Your task to perform on an android device: Empty the shopping cart on newegg. Add acer predator to the cart on newegg, then select checkout. Image 0: 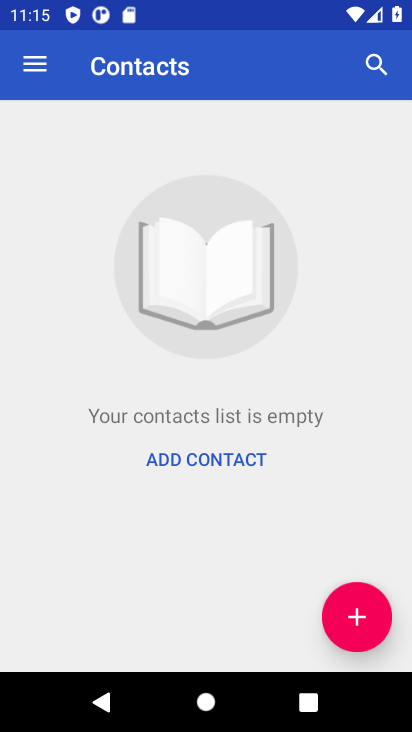
Step 0: press home button
Your task to perform on an android device: Empty the shopping cart on newegg. Add acer predator to the cart on newegg, then select checkout. Image 1: 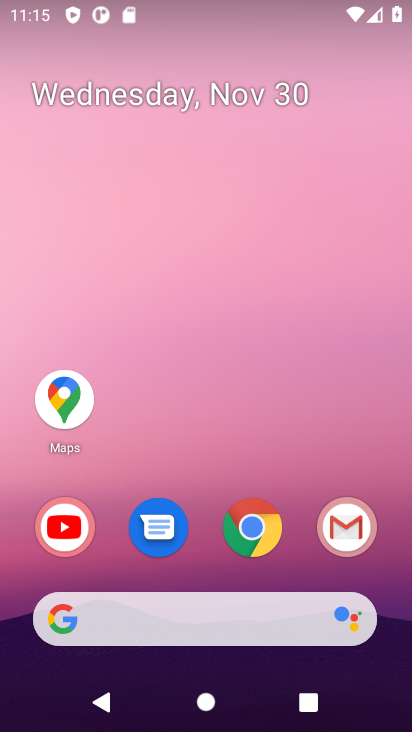
Step 1: click (255, 534)
Your task to perform on an android device: Empty the shopping cart on newegg. Add acer predator to the cart on newegg, then select checkout. Image 2: 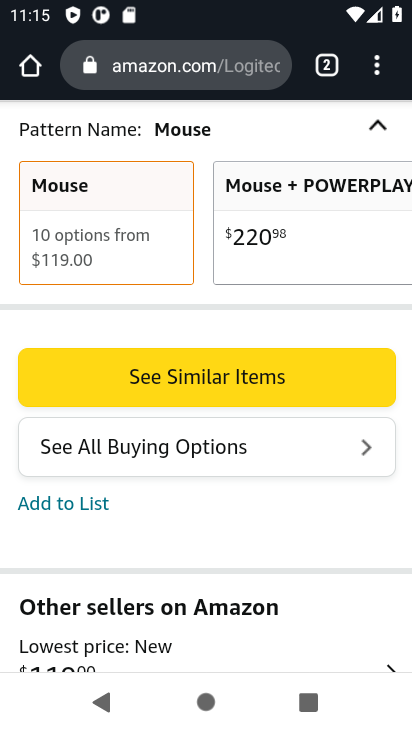
Step 2: click (164, 72)
Your task to perform on an android device: Empty the shopping cart on newegg. Add acer predator to the cart on newegg, then select checkout. Image 3: 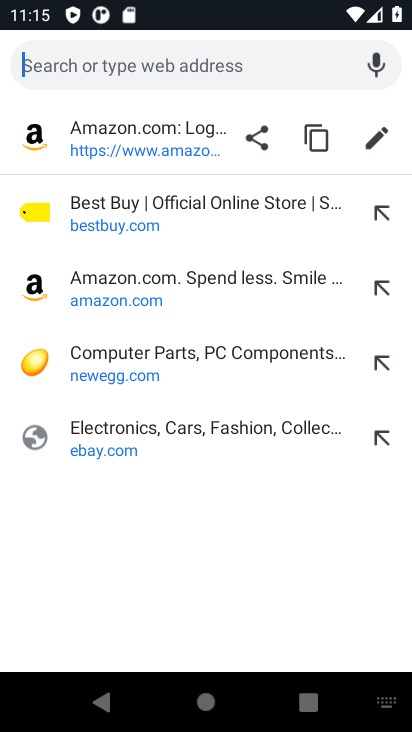
Step 3: click (96, 361)
Your task to perform on an android device: Empty the shopping cart on newegg. Add acer predator to the cart on newegg, then select checkout. Image 4: 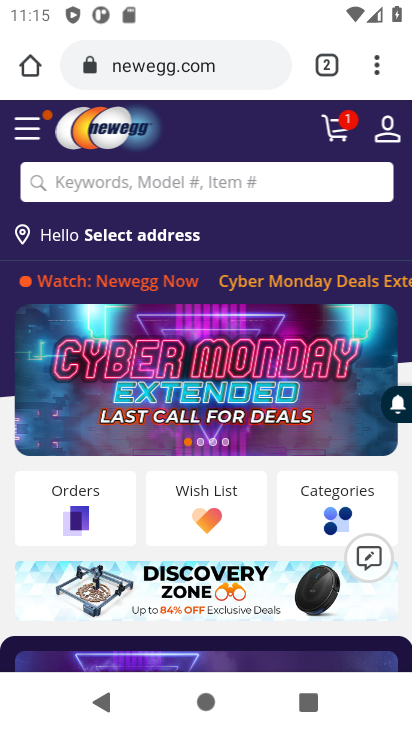
Step 4: click (335, 139)
Your task to perform on an android device: Empty the shopping cart on newegg. Add acer predator to the cart on newegg, then select checkout. Image 5: 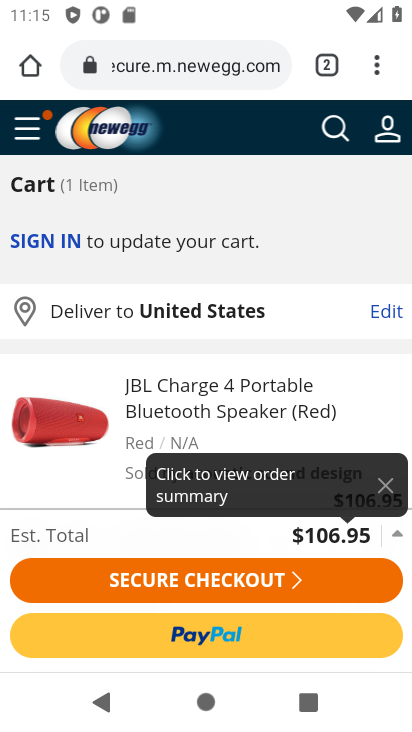
Step 5: drag from (161, 442) to (152, 233)
Your task to perform on an android device: Empty the shopping cart on newegg. Add acer predator to the cart on newegg, then select checkout. Image 6: 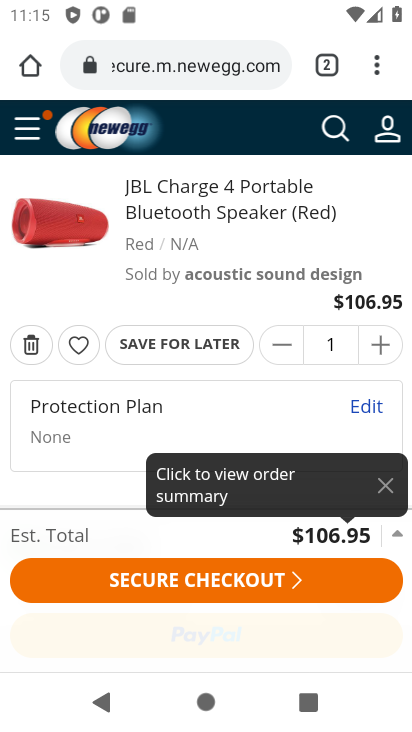
Step 6: click (31, 347)
Your task to perform on an android device: Empty the shopping cart on newegg. Add acer predator to the cart on newegg, then select checkout. Image 7: 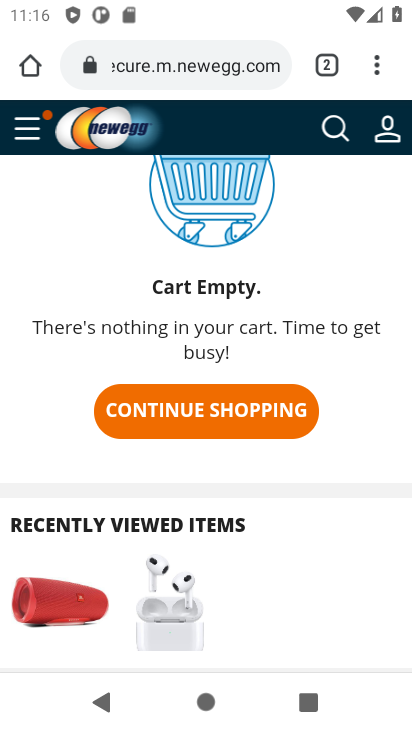
Step 7: click (332, 131)
Your task to perform on an android device: Empty the shopping cart on newegg. Add acer predator to the cart on newegg, then select checkout. Image 8: 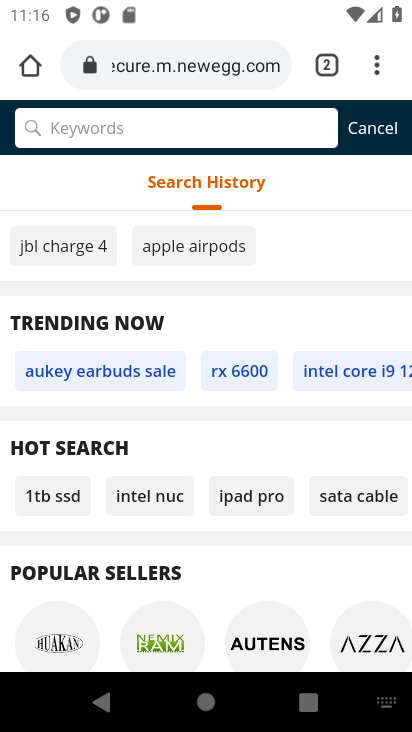
Step 8: type "acer predator"
Your task to perform on an android device: Empty the shopping cart on newegg. Add acer predator to the cart on newegg, then select checkout. Image 9: 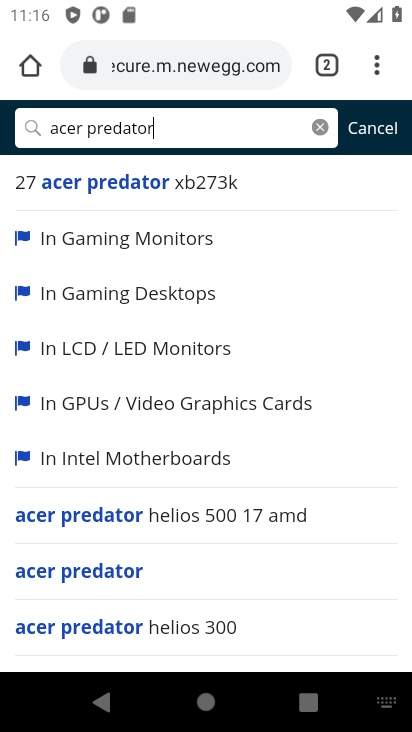
Step 9: click (100, 569)
Your task to perform on an android device: Empty the shopping cart on newegg. Add acer predator to the cart on newegg, then select checkout. Image 10: 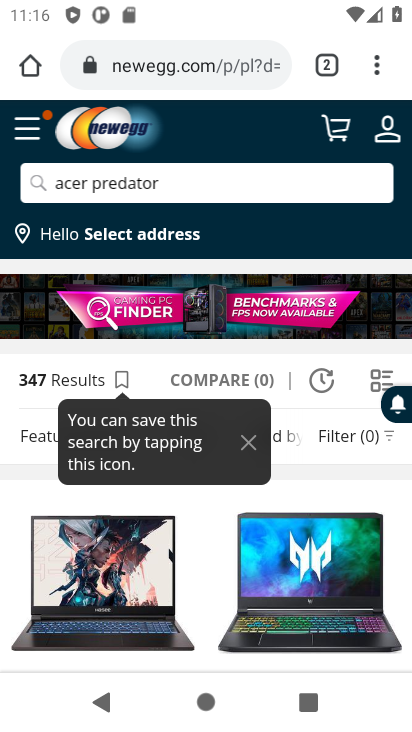
Step 10: drag from (201, 562) to (215, 360)
Your task to perform on an android device: Empty the shopping cart on newegg. Add acer predator to the cart on newegg, then select checkout. Image 11: 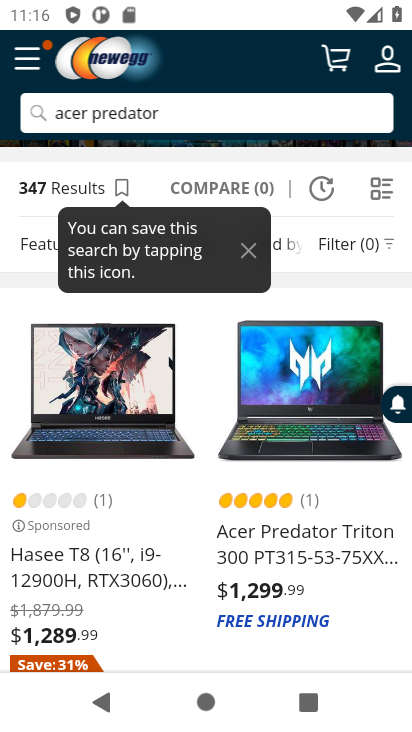
Step 11: click (306, 545)
Your task to perform on an android device: Empty the shopping cart on newegg. Add acer predator to the cart on newegg, then select checkout. Image 12: 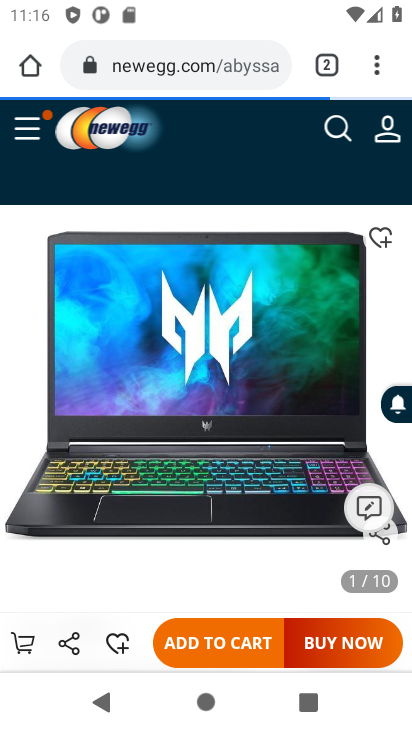
Step 12: click (227, 650)
Your task to perform on an android device: Empty the shopping cart on newegg. Add acer predator to the cart on newegg, then select checkout. Image 13: 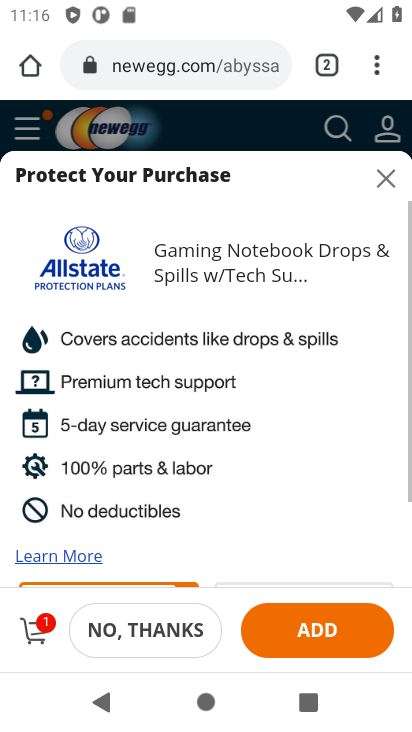
Step 13: click (38, 631)
Your task to perform on an android device: Empty the shopping cart on newegg. Add acer predator to the cart on newegg, then select checkout. Image 14: 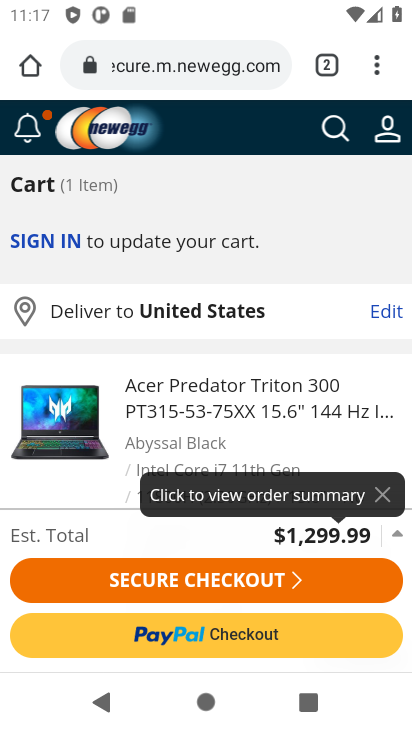
Step 14: click (197, 588)
Your task to perform on an android device: Empty the shopping cart on newegg. Add acer predator to the cart on newegg, then select checkout. Image 15: 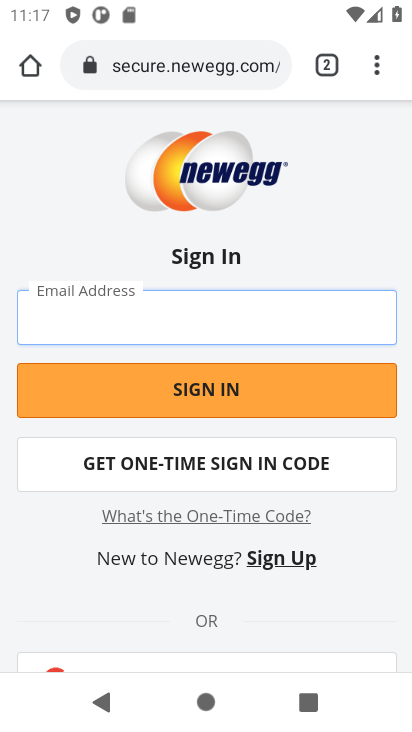
Step 15: task complete